Your task to perform on an android device: turn off data saver in the chrome app Image 0: 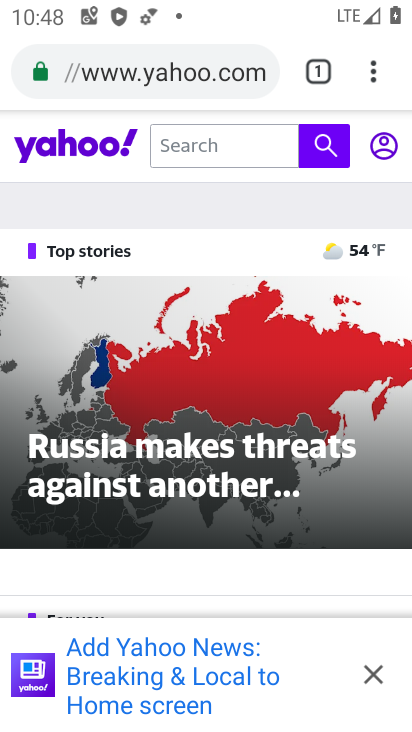
Step 0: click (371, 78)
Your task to perform on an android device: turn off data saver in the chrome app Image 1: 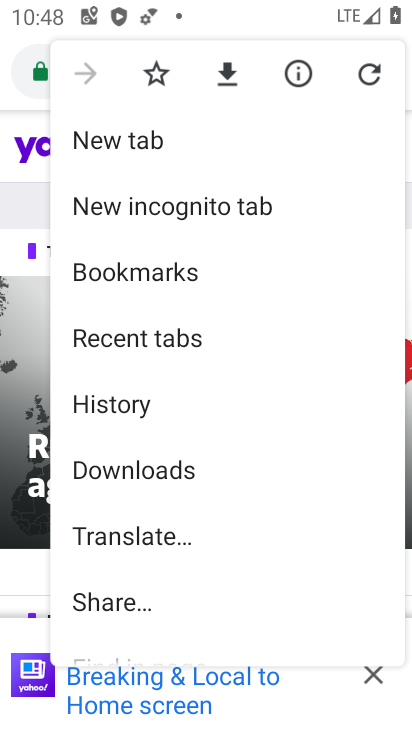
Step 1: drag from (146, 501) to (112, 52)
Your task to perform on an android device: turn off data saver in the chrome app Image 2: 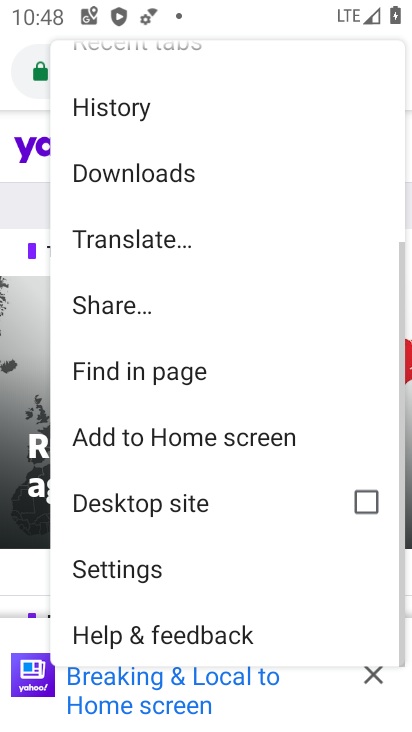
Step 2: click (105, 577)
Your task to perform on an android device: turn off data saver in the chrome app Image 3: 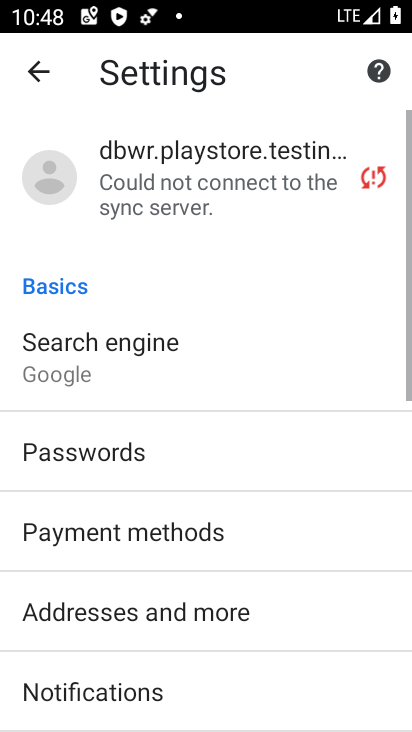
Step 3: drag from (112, 563) to (162, 48)
Your task to perform on an android device: turn off data saver in the chrome app Image 4: 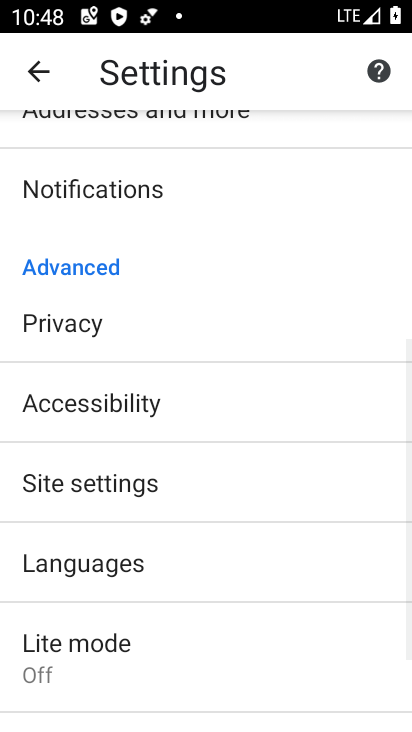
Step 4: click (130, 618)
Your task to perform on an android device: turn off data saver in the chrome app Image 5: 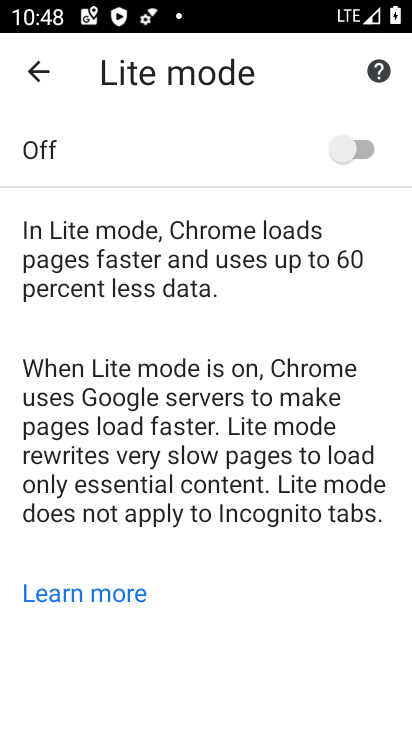
Step 5: task complete